Your task to perform on an android device: turn on javascript in the chrome app Image 0: 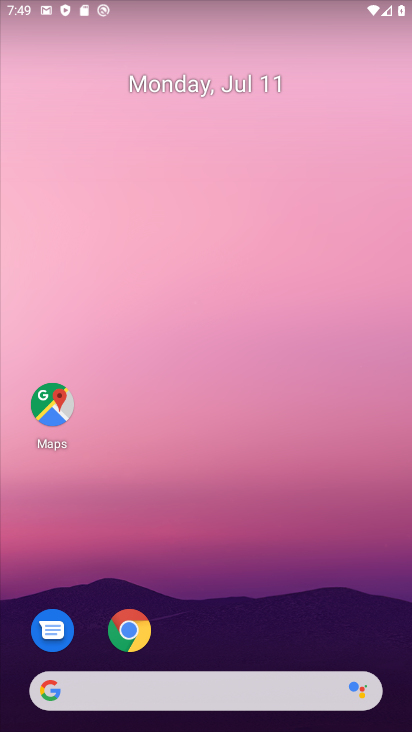
Step 0: drag from (187, 625) to (280, 31)
Your task to perform on an android device: turn on javascript in the chrome app Image 1: 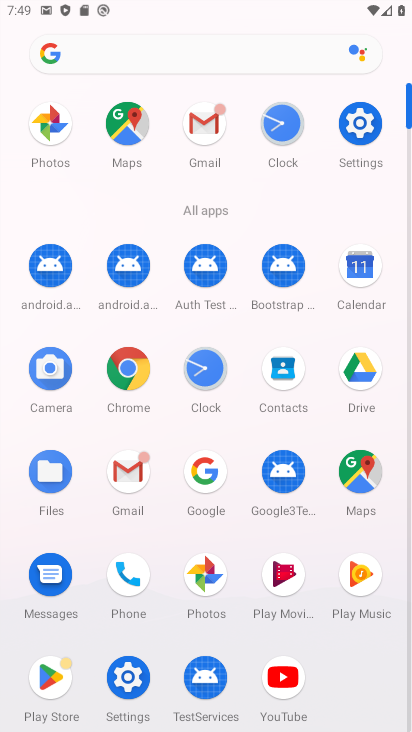
Step 1: click (114, 367)
Your task to perform on an android device: turn on javascript in the chrome app Image 2: 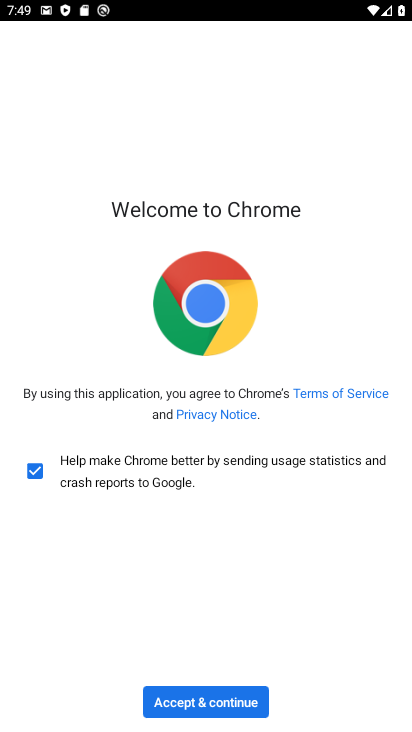
Step 2: click (234, 695)
Your task to perform on an android device: turn on javascript in the chrome app Image 3: 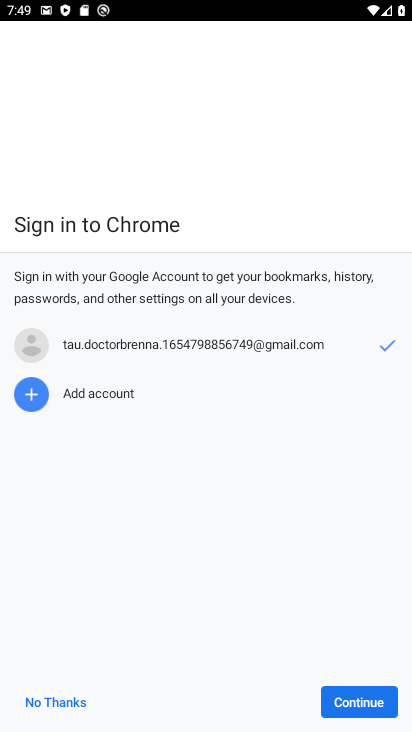
Step 3: click (370, 707)
Your task to perform on an android device: turn on javascript in the chrome app Image 4: 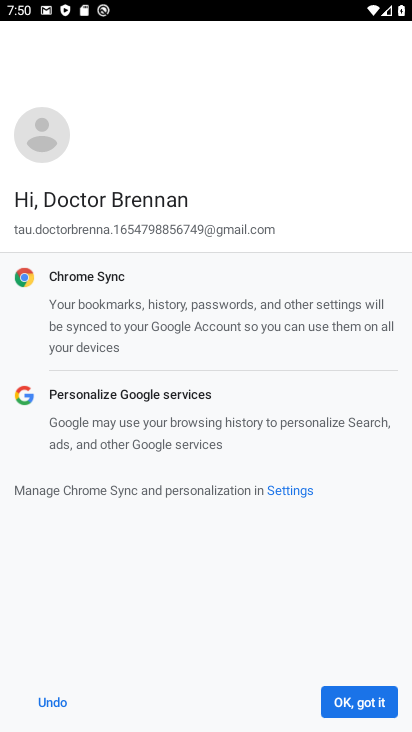
Step 4: click (370, 707)
Your task to perform on an android device: turn on javascript in the chrome app Image 5: 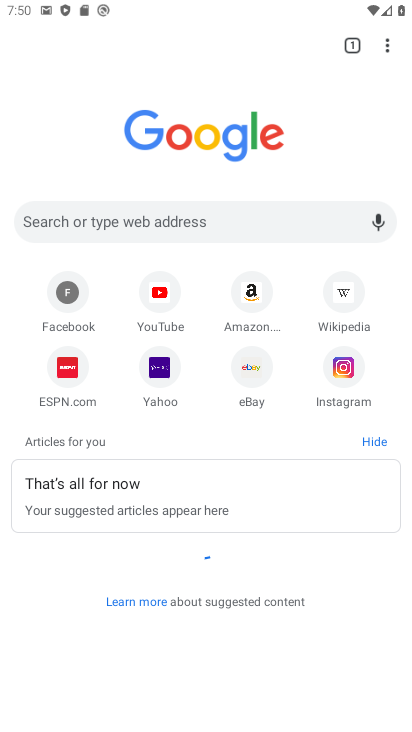
Step 5: drag from (391, 39) to (260, 369)
Your task to perform on an android device: turn on javascript in the chrome app Image 6: 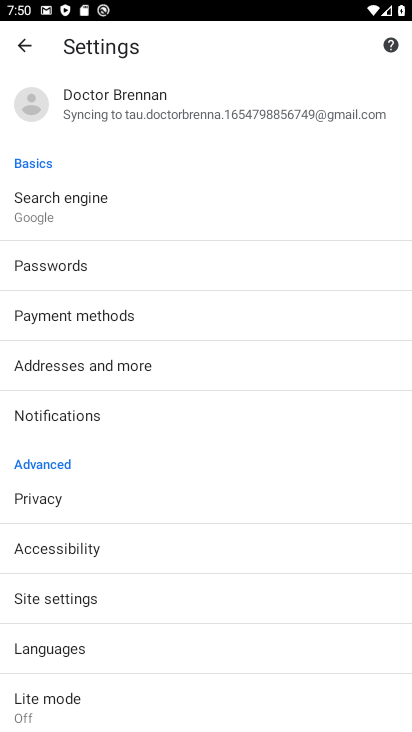
Step 6: click (132, 591)
Your task to perform on an android device: turn on javascript in the chrome app Image 7: 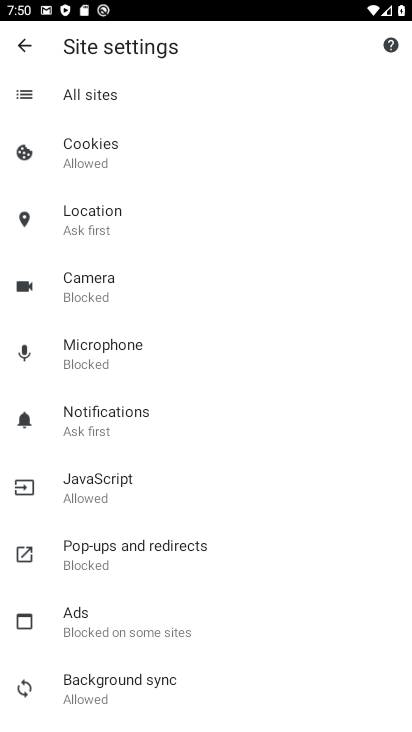
Step 7: click (170, 477)
Your task to perform on an android device: turn on javascript in the chrome app Image 8: 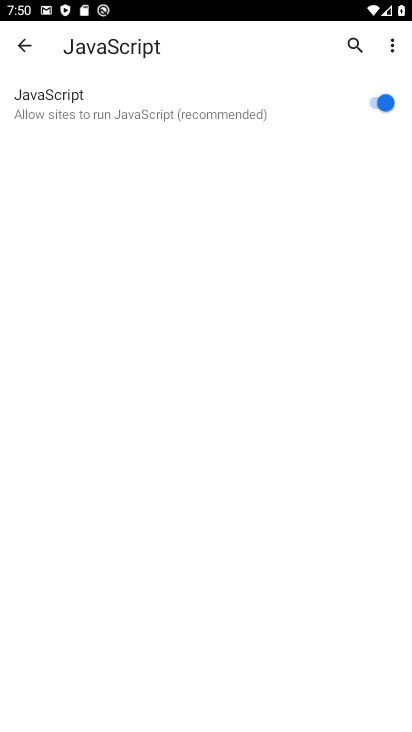
Step 8: task complete